Your task to perform on an android device: Toggle the flashlight Image 0: 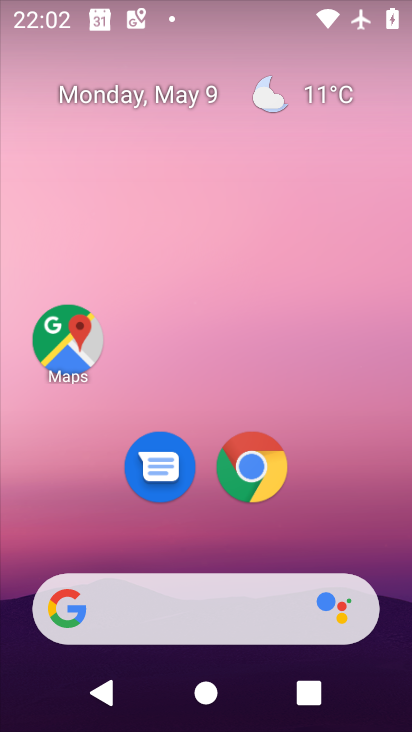
Step 0: drag from (309, 459) to (272, 158)
Your task to perform on an android device: Toggle the flashlight Image 1: 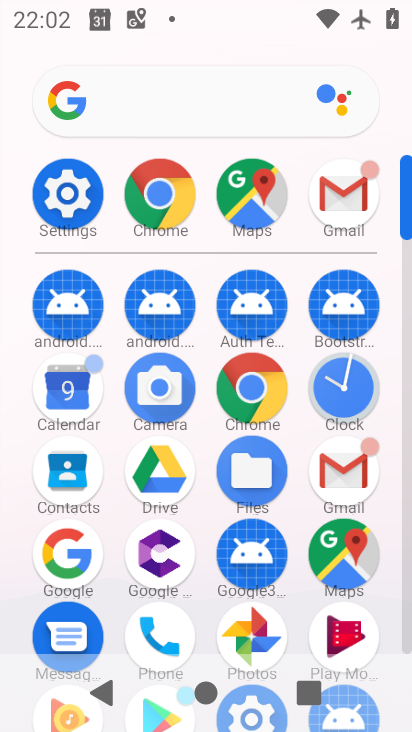
Step 1: click (49, 200)
Your task to perform on an android device: Toggle the flashlight Image 2: 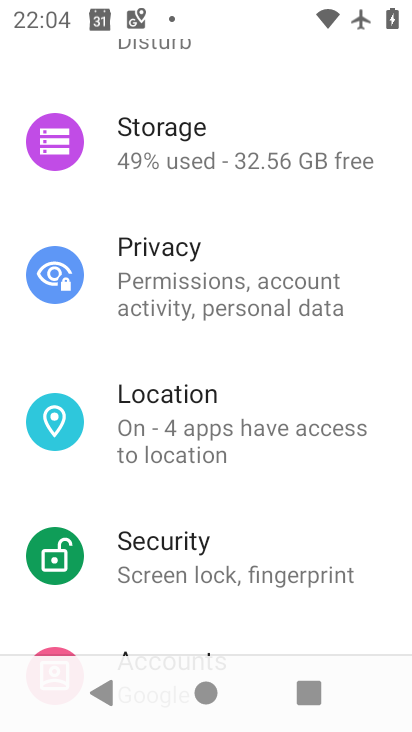
Step 2: task complete